Your task to perform on an android device: find which apps use the phone's location Image 0: 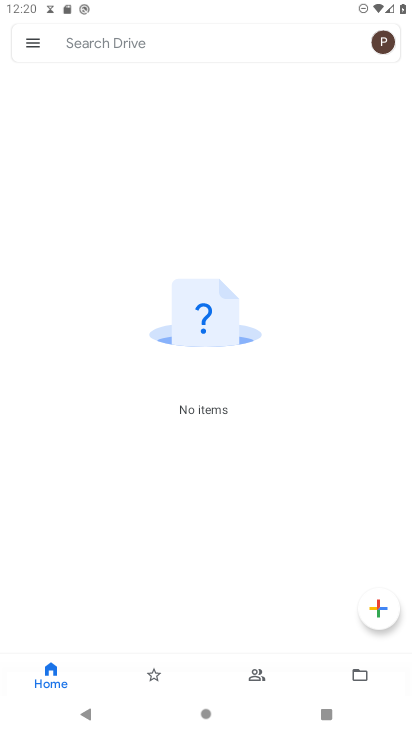
Step 0: press home button
Your task to perform on an android device: find which apps use the phone's location Image 1: 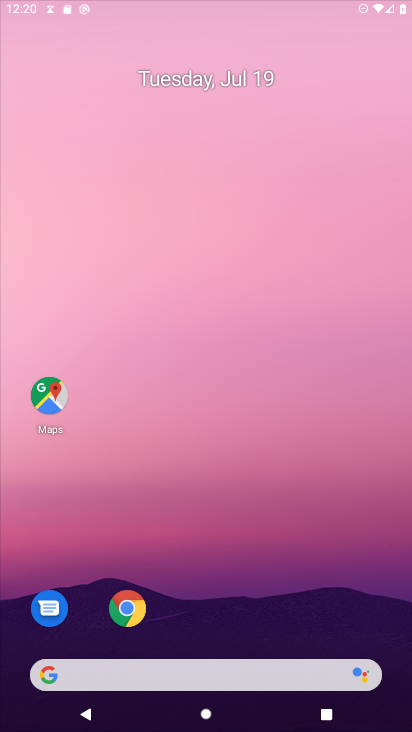
Step 1: drag from (261, 644) to (316, 61)
Your task to perform on an android device: find which apps use the phone's location Image 2: 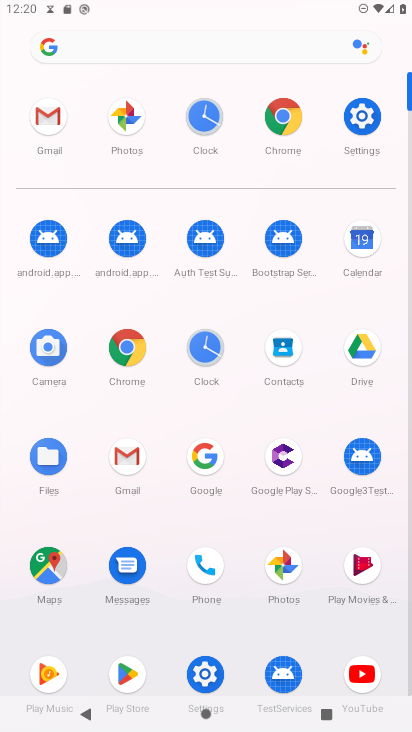
Step 2: click (363, 117)
Your task to perform on an android device: find which apps use the phone's location Image 3: 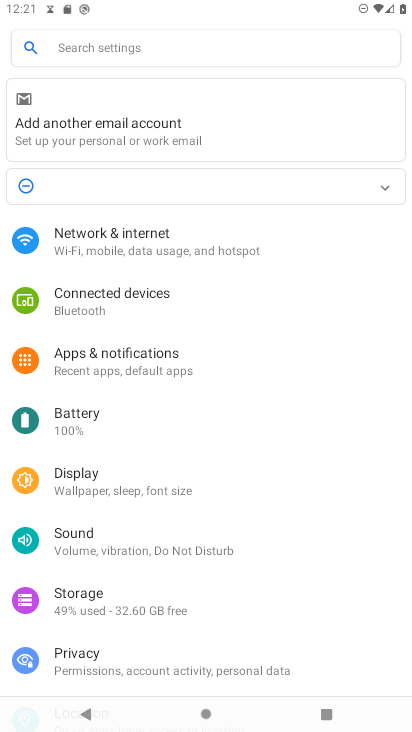
Step 3: drag from (92, 670) to (148, 245)
Your task to perform on an android device: find which apps use the phone's location Image 4: 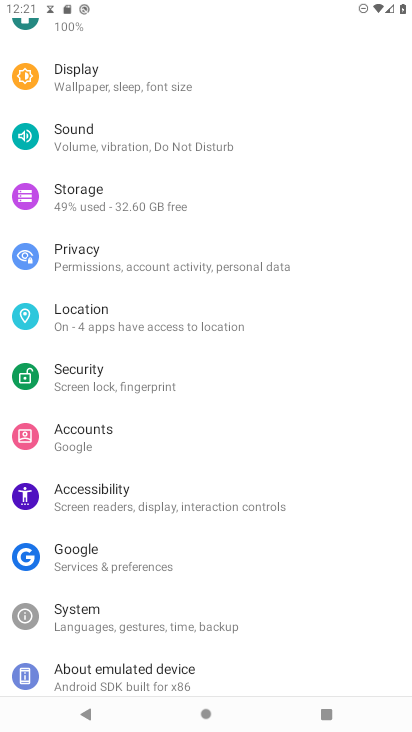
Step 4: click (146, 323)
Your task to perform on an android device: find which apps use the phone's location Image 5: 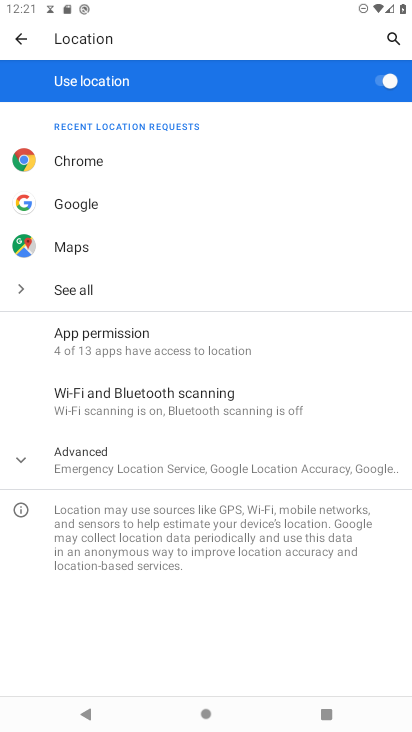
Step 5: click (257, 355)
Your task to perform on an android device: find which apps use the phone's location Image 6: 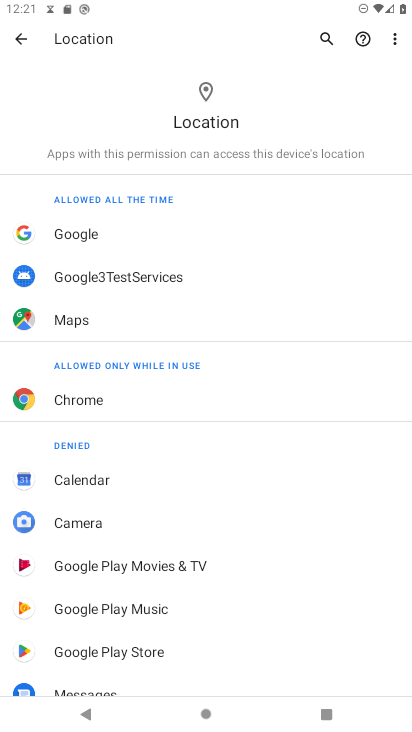
Step 6: task complete